Your task to perform on an android device: What's the weather? Image 0: 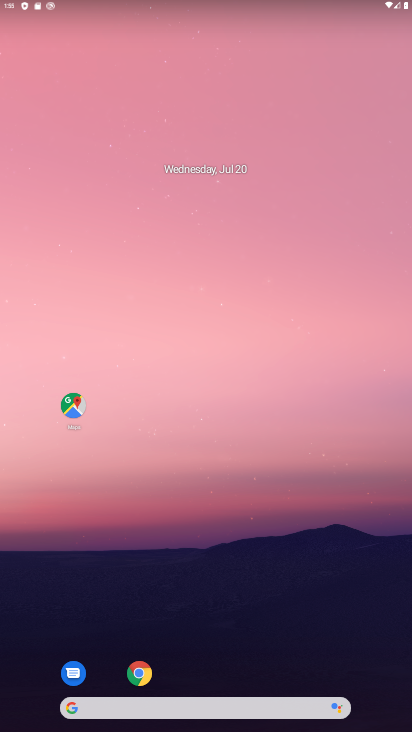
Step 0: drag from (28, 238) to (322, 246)
Your task to perform on an android device: What's the weather? Image 1: 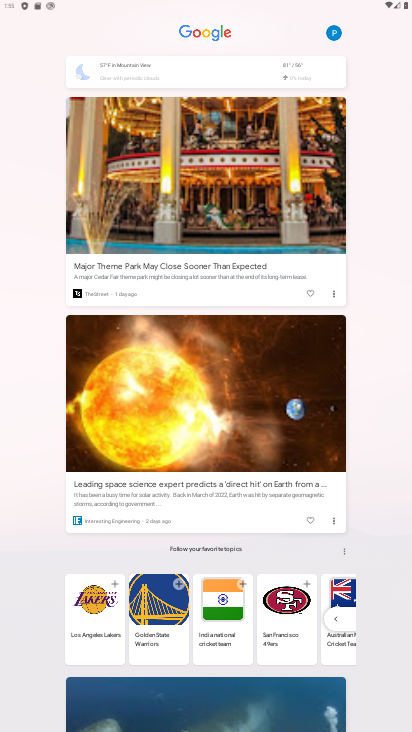
Step 1: click (293, 76)
Your task to perform on an android device: What's the weather? Image 2: 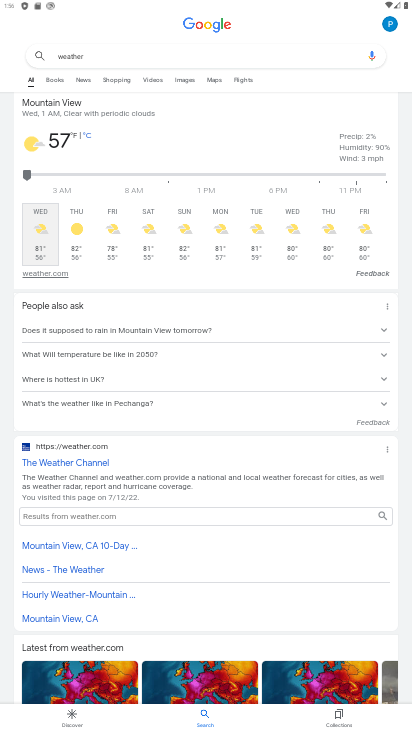
Step 2: task complete